Your task to perform on an android device: turn on sleep mode Image 0: 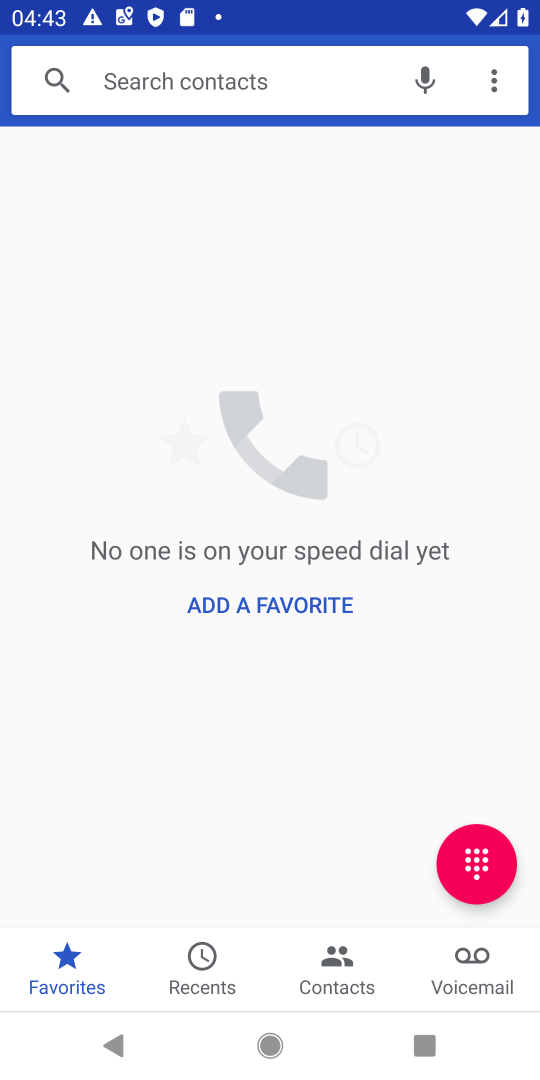
Step 0: press home button
Your task to perform on an android device: turn on sleep mode Image 1: 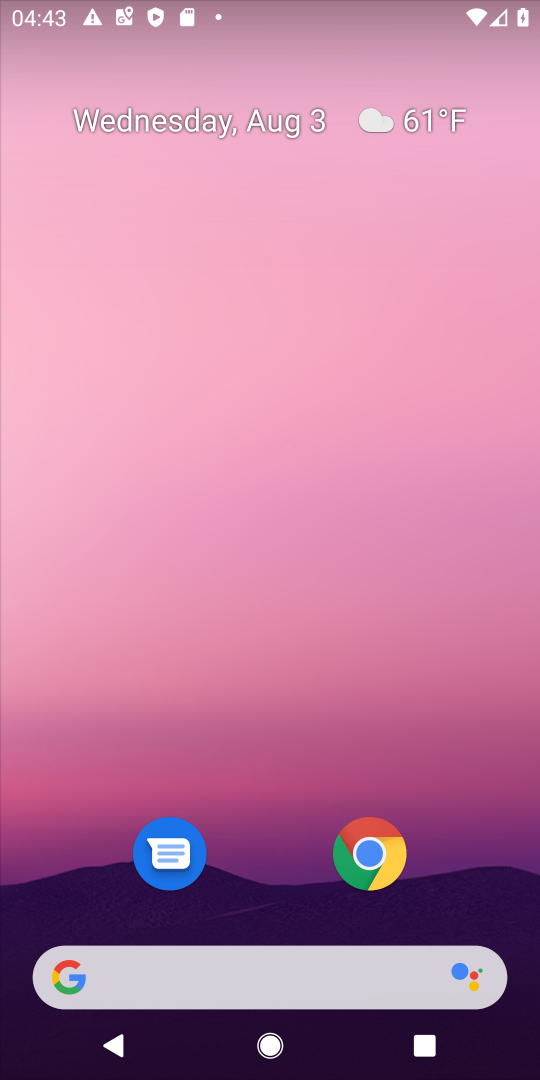
Step 1: drag from (260, 911) to (237, 314)
Your task to perform on an android device: turn on sleep mode Image 2: 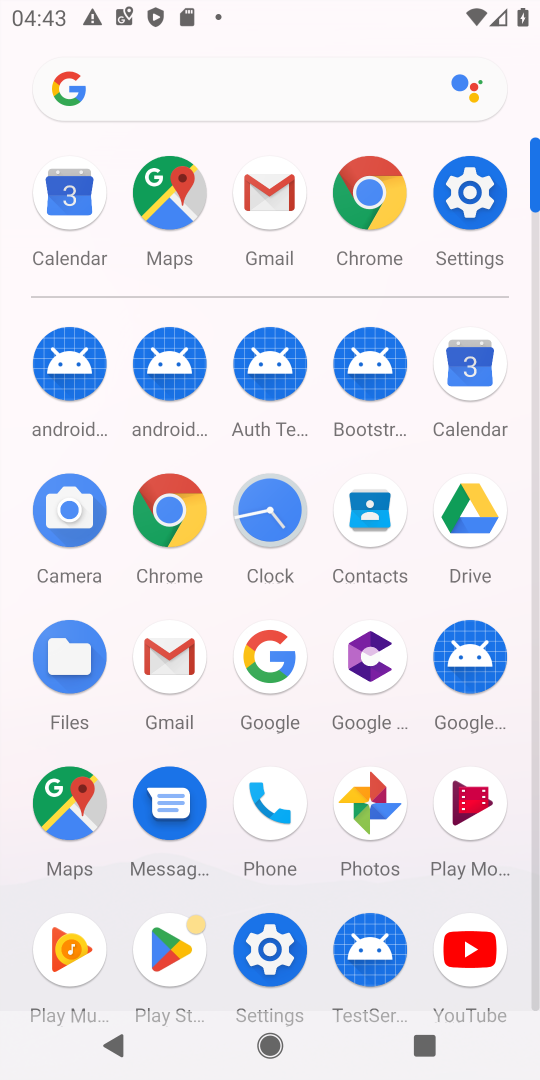
Step 2: click (469, 184)
Your task to perform on an android device: turn on sleep mode Image 3: 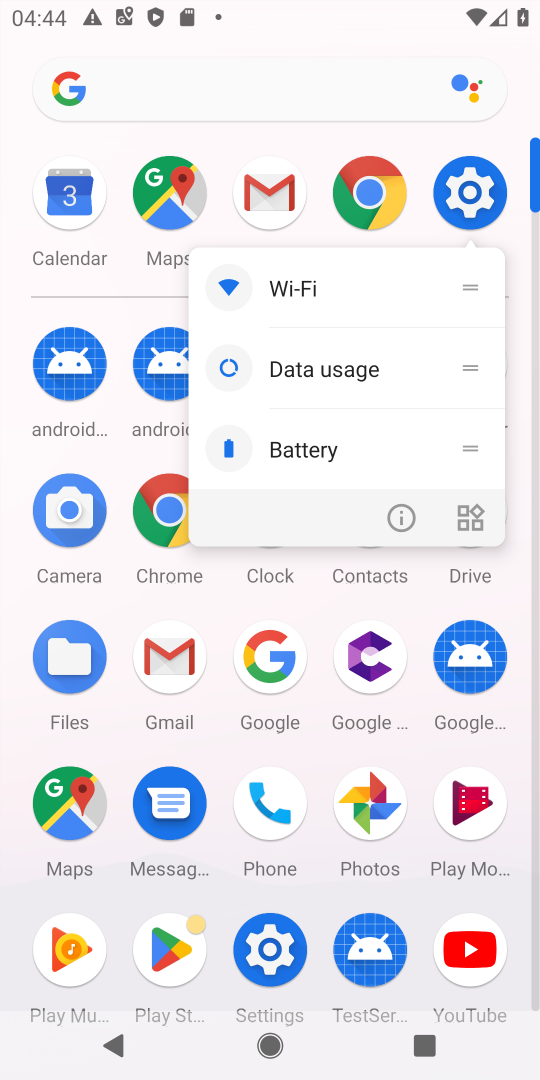
Step 3: click (473, 191)
Your task to perform on an android device: turn on sleep mode Image 4: 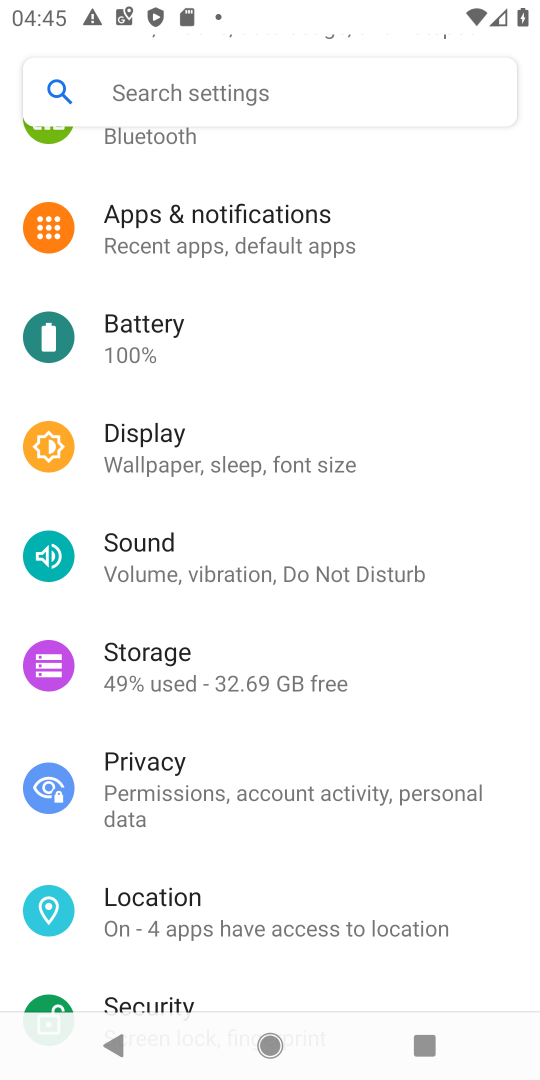
Step 4: click (204, 461)
Your task to perform on an android device: turn on sleep mode Image 5: 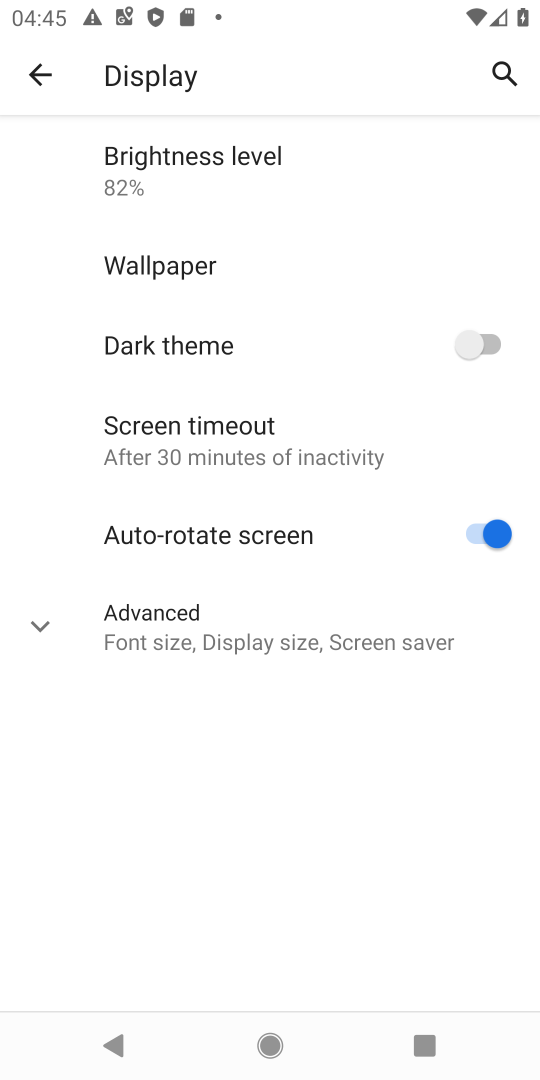
Step 5: task complete